Your task to perform on an android device: turn off sleep mode Image 0: 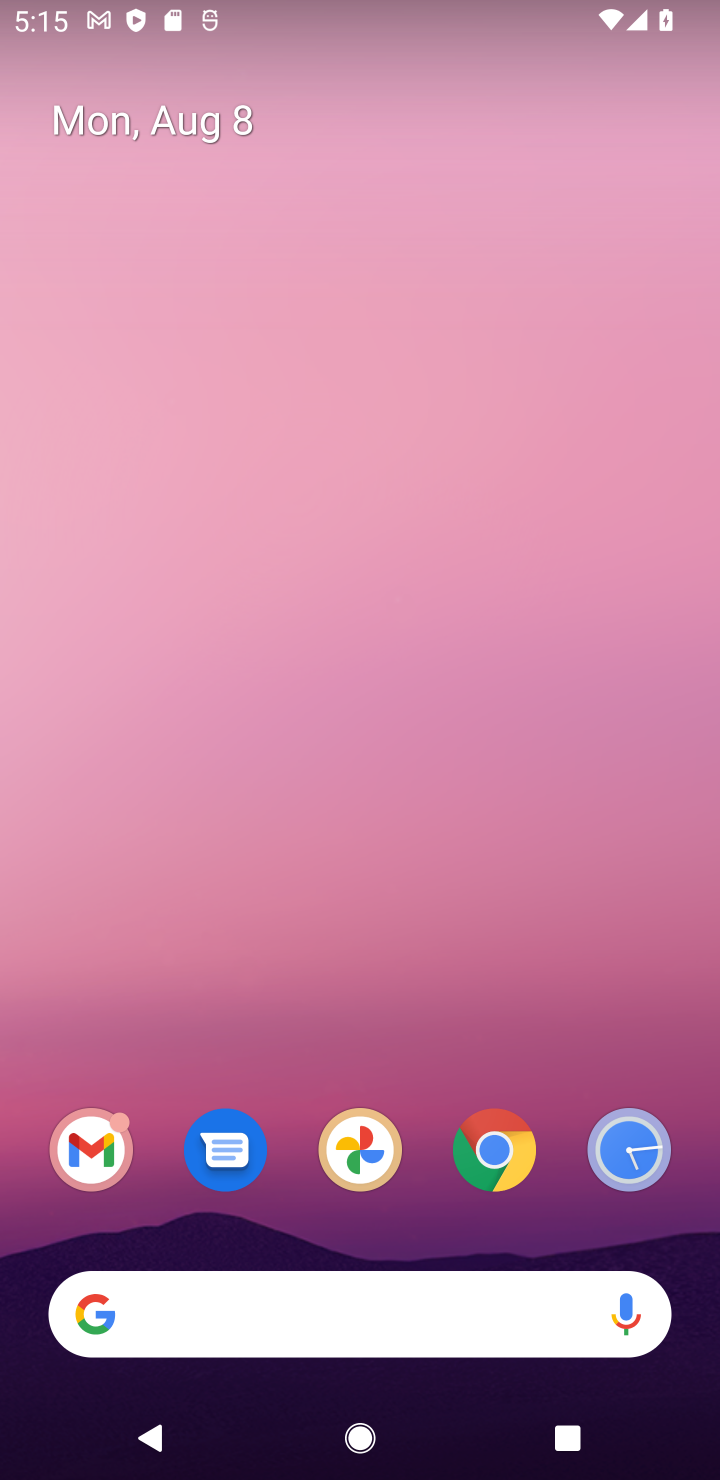
Step 0: drag from (399, 229) to (77, 18)
Your task to perform on an android device: turn off sleep mode Image 1: 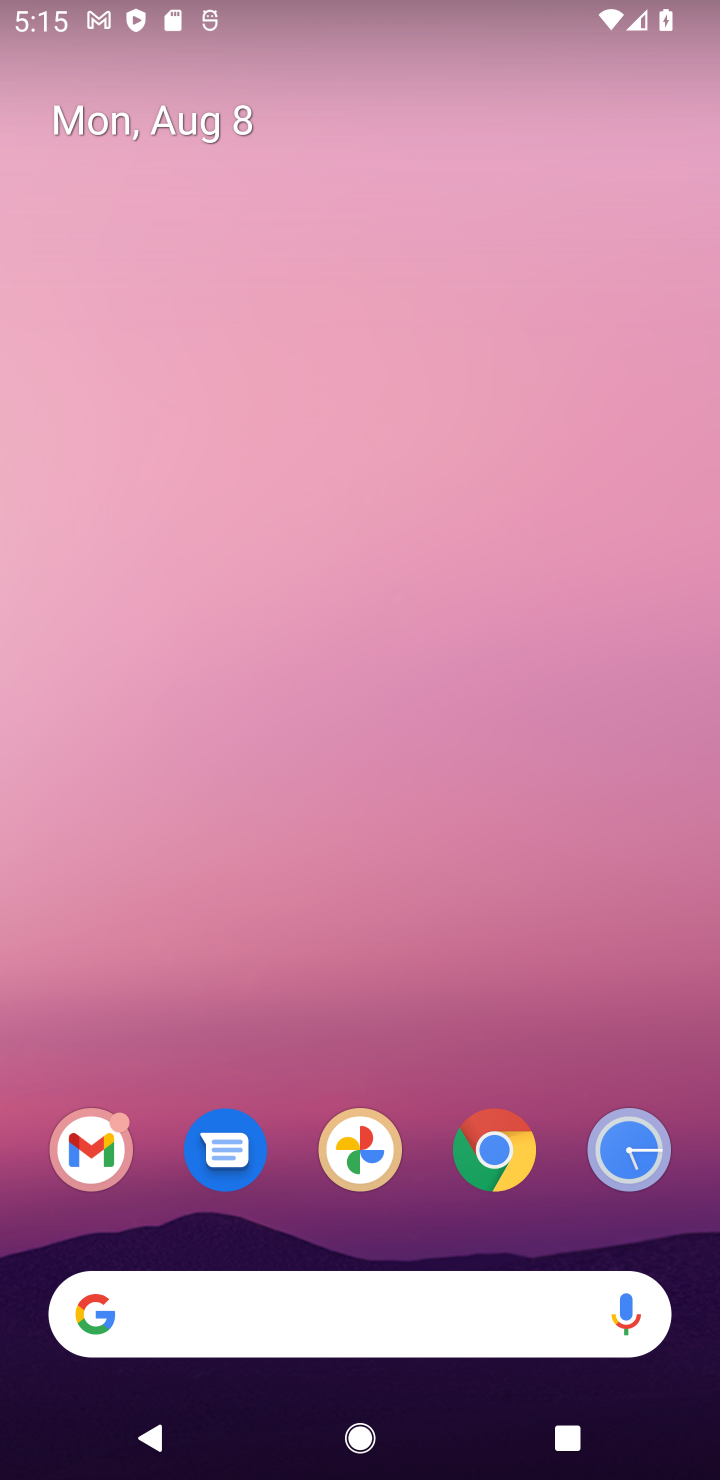
Step 1: drag from (431, 1254) to (368, 30)
Your task to perform on an android device: turn off sleep mode Image 2: 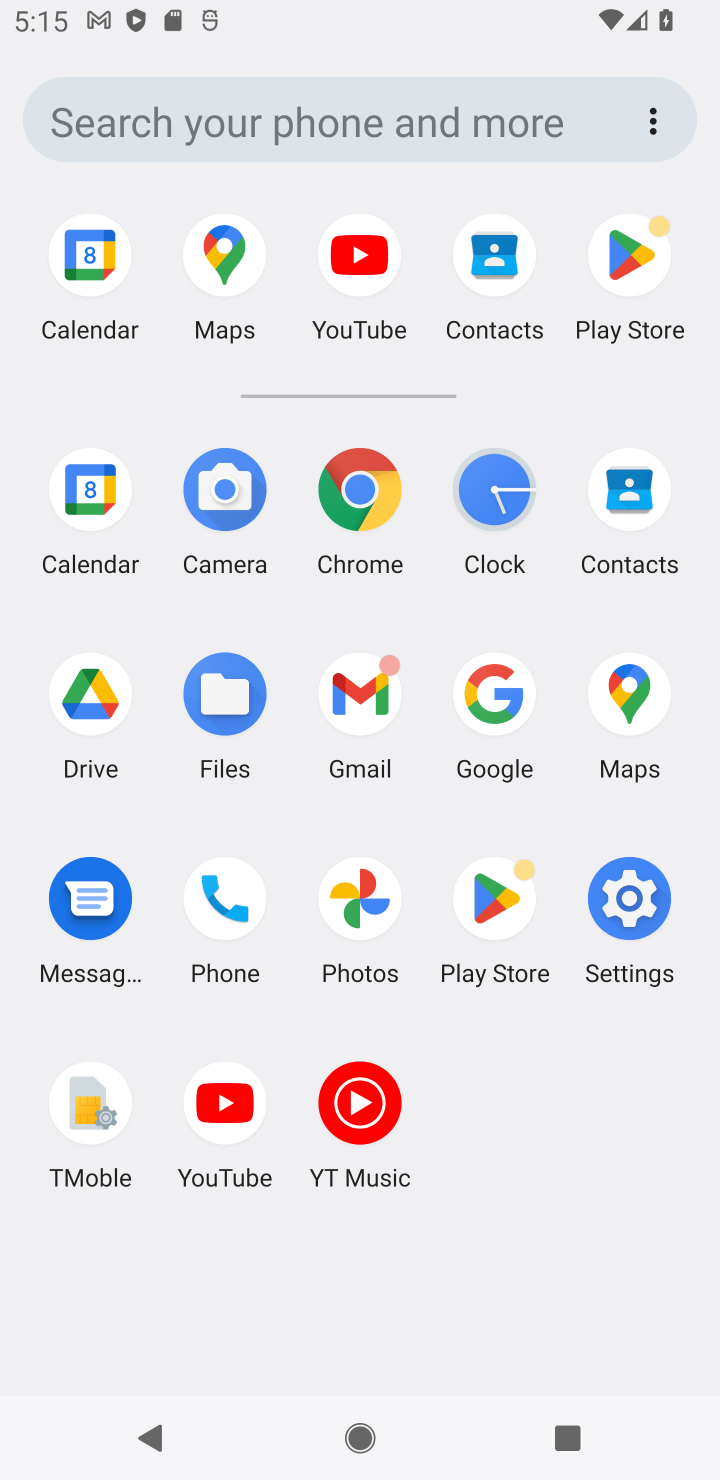
Step 2: click (626, 982)
Your task to perform on an android device: turn off sleep mode Image 3: 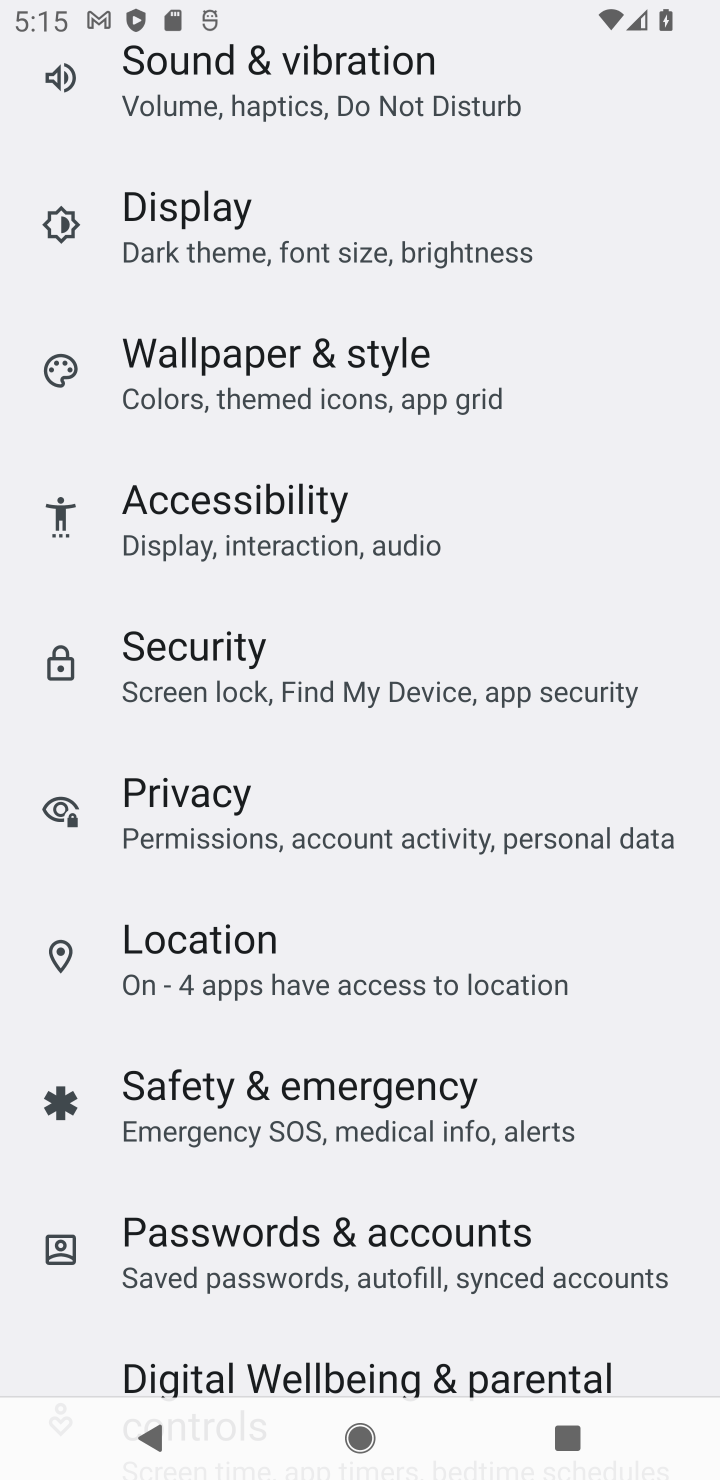
Step 3: click (358, 250)
Your task to perform on an android device: turn off sleep mode Image 4: 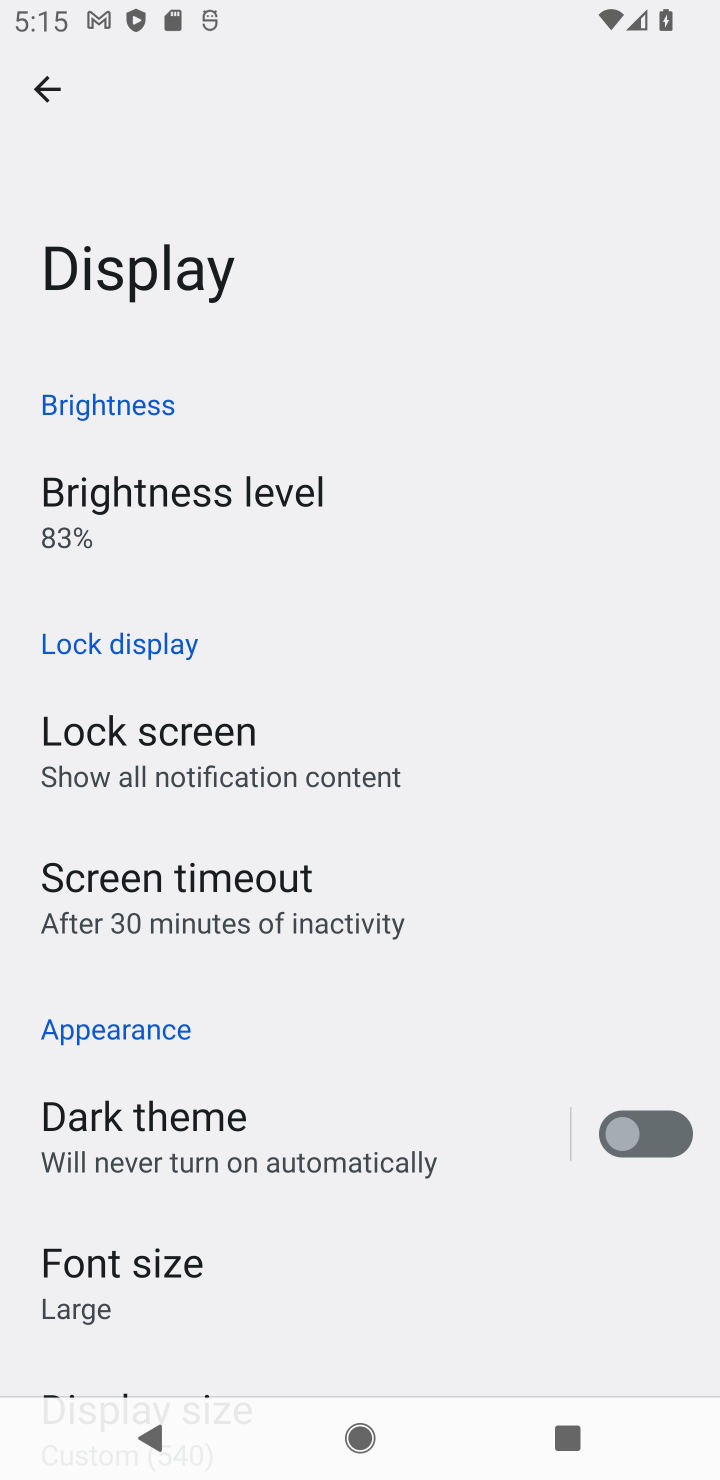
Step 4: click (627, 1119)
Your task to perform on an android device: turn off sleep mode Image 5: 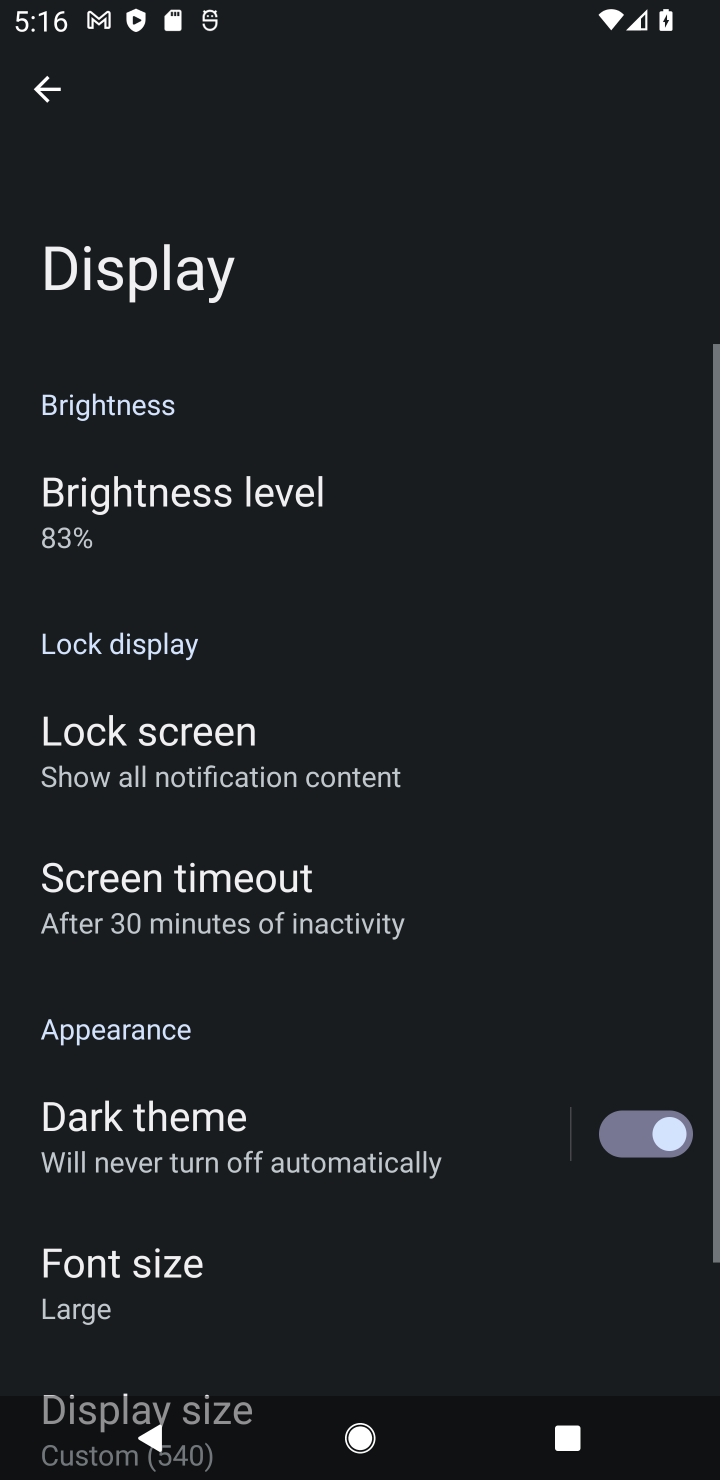
Step 5: click (358, 911)
Your task to perform on an android device: turn off sleep mode Image 6: 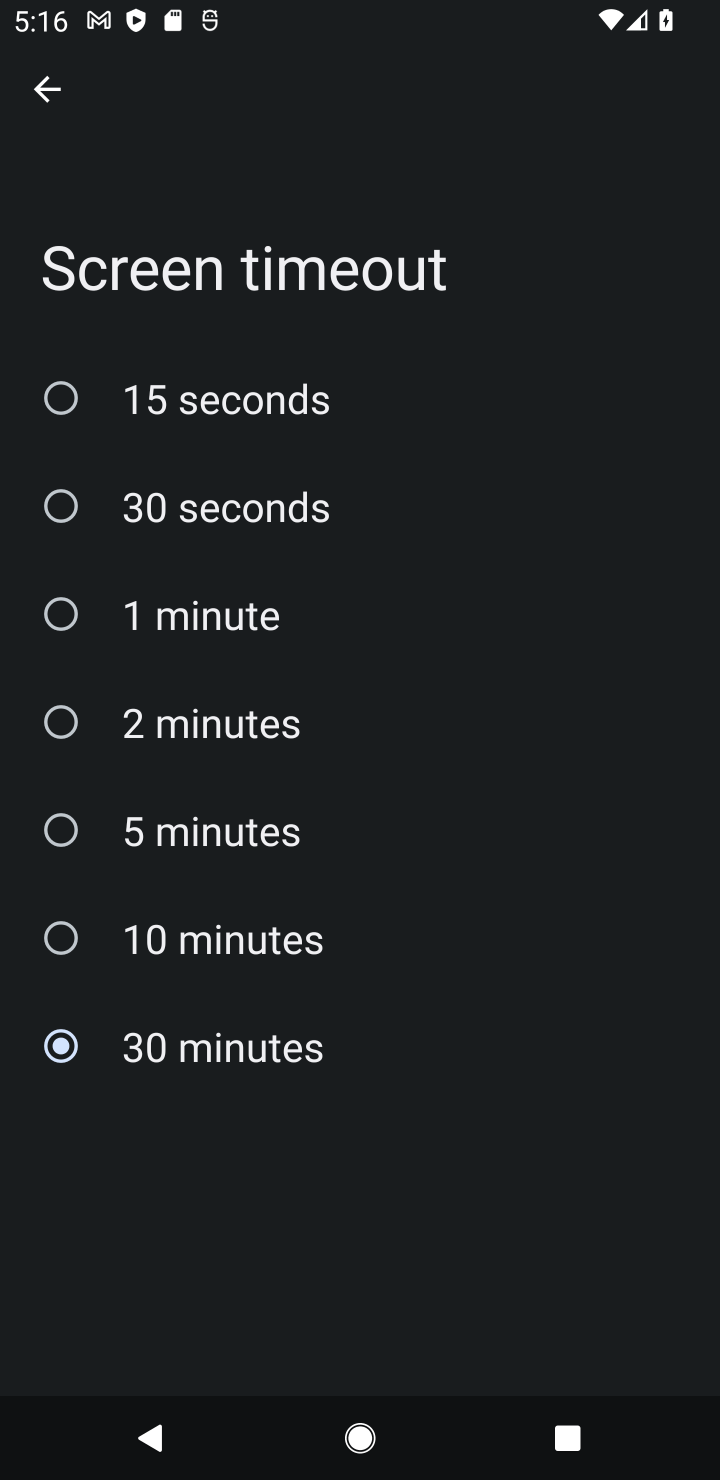
Step 6: click (238, 368)
Your task to perform on an android device: turn off sleep mode Image 7: 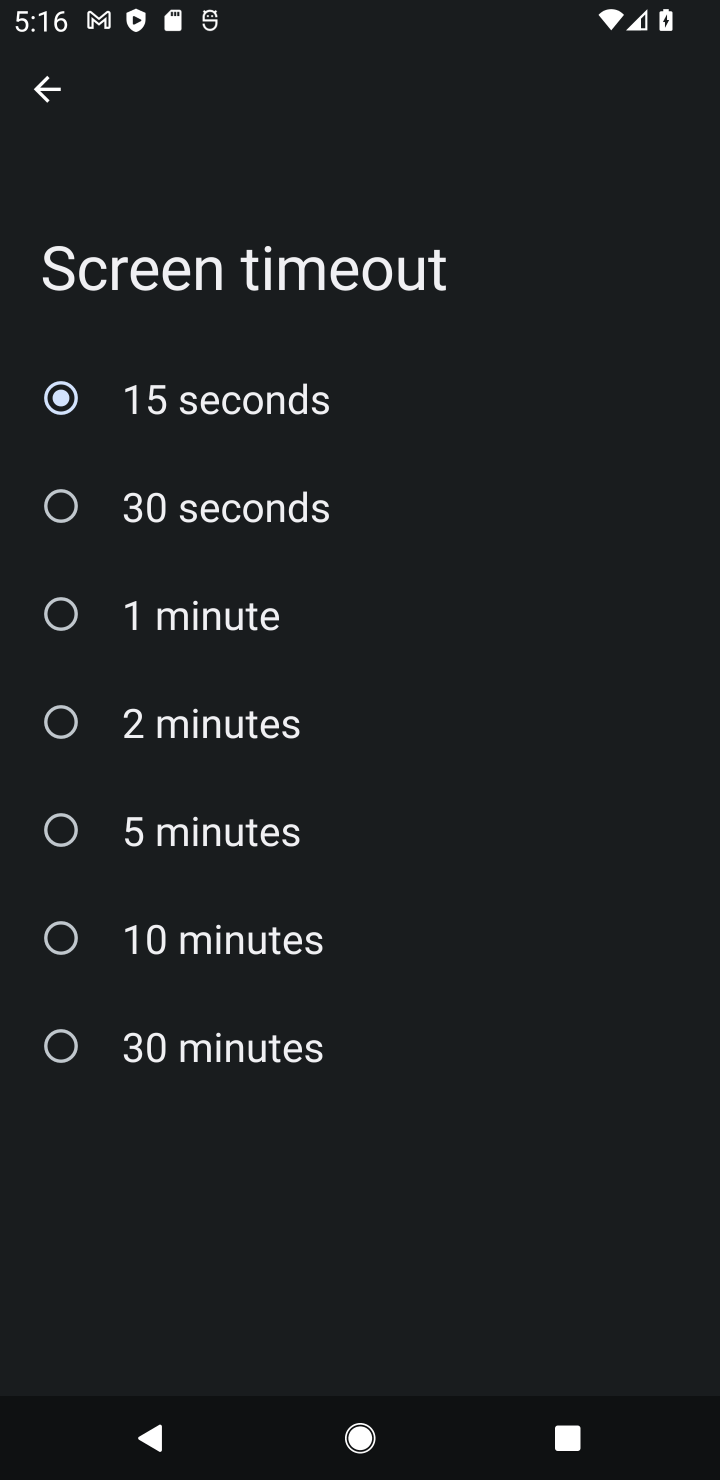
Step 7: task complete